Your task to perform on an android device: Go to sound settings Image 0: 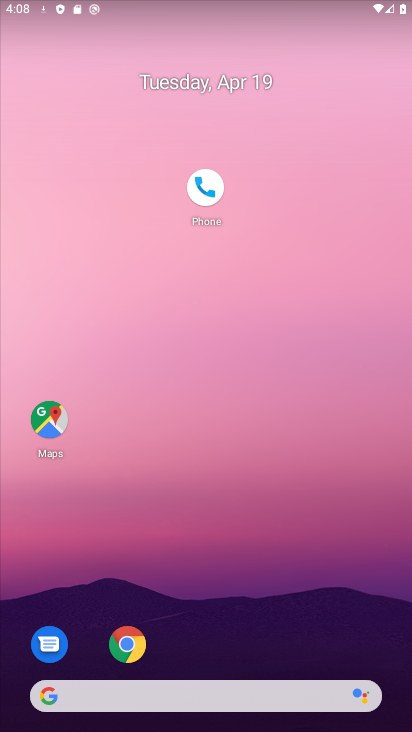
Step 0: drag from (260, 652) to (373, 13)
Your task to perform on an android device: Go to sound settings Image 1: 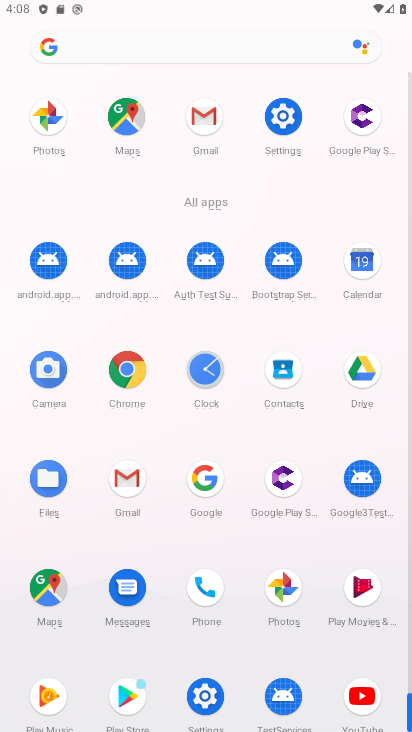
Step 1: click (278, 122)
Your task to perform on an android device: Go to sound settings Image 2: 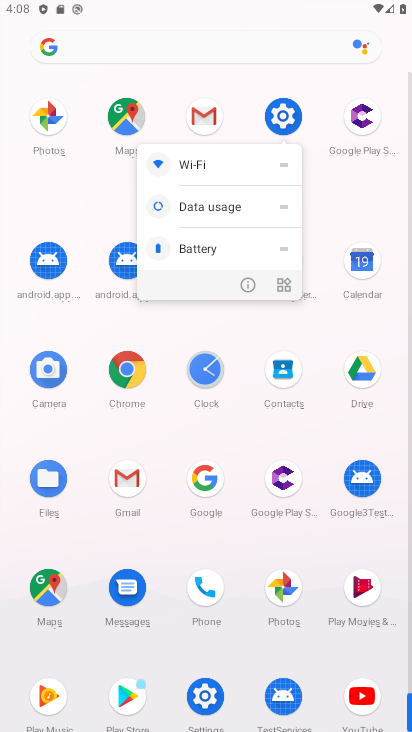
Step 2: click (211, 707)
Your task to perform on an android device: Go to sound settings Image 3: 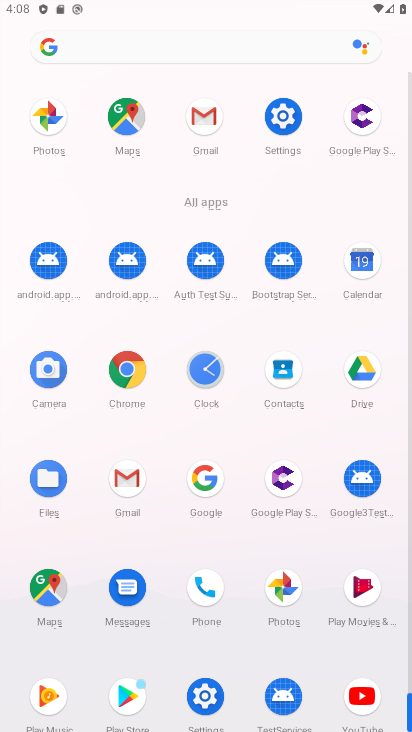
Step 3: click (211, 707)
Your task to perform on an android device: Go to sound settings Image 4: 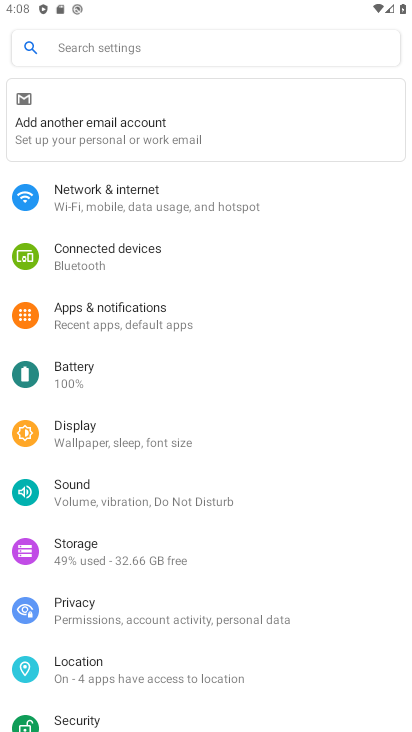
Step 4: click (92, 495)
Your task to perform on an android device: Go to sound settings Image 5: 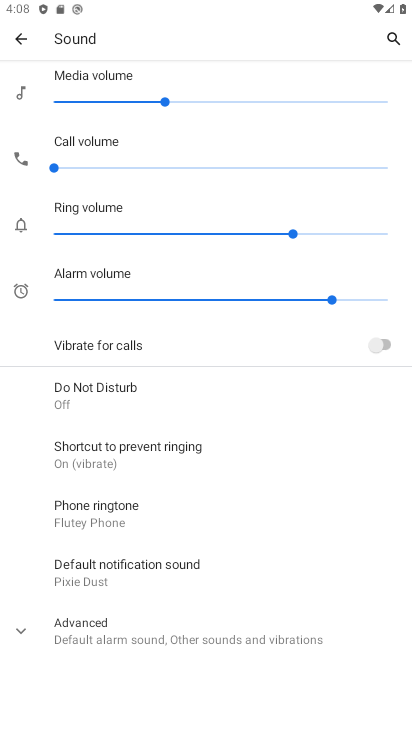
Step 5: click (200, 631)
Your task to perform on an android device: Go to sound settings Image 6: 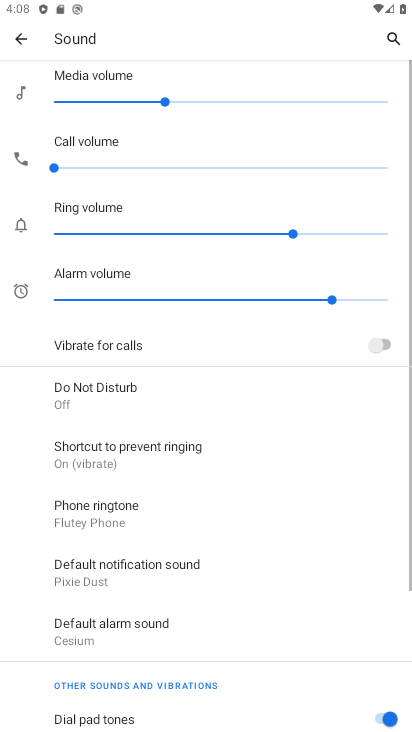
Step 6: task complete